Your task to perform on an android device: Open calendar and show me the second week of next month Image 0: 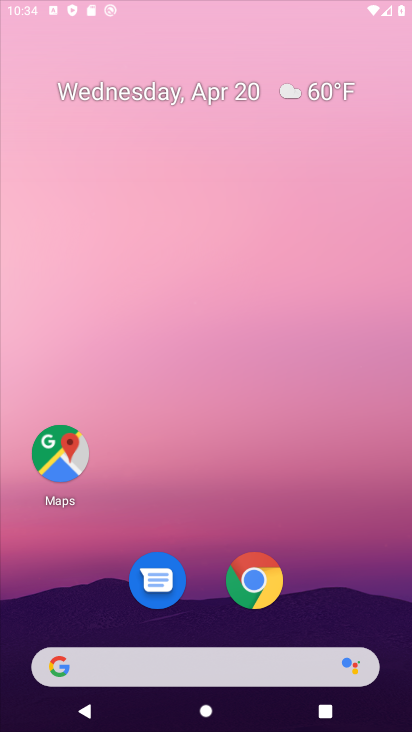
Step 0: click (204, 35)
Your task to perform on an android device: Open calendar and show me the second week of next month Image 1: 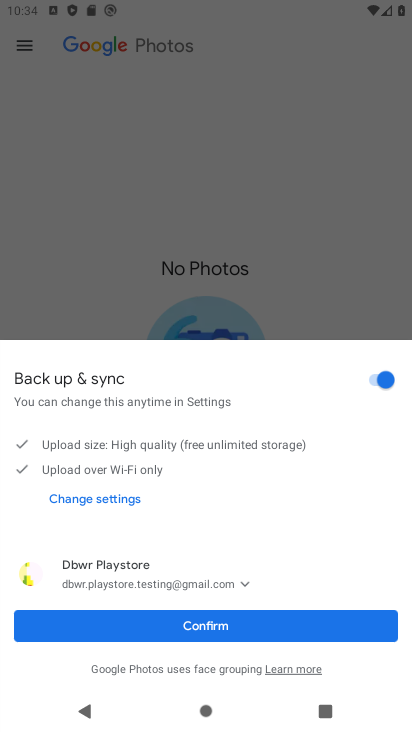
Step 1: press home button
Your task to perform on an android device: Open calendar and show me the second week of next month Image 2: 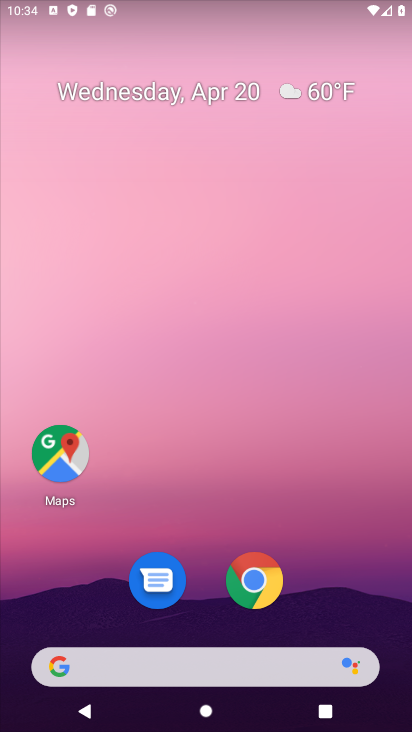
Step 2: drag from (194, 659) to (244, 65)
Your task to perform on an android device: Open calendar and show me the second week of next month Image 3: 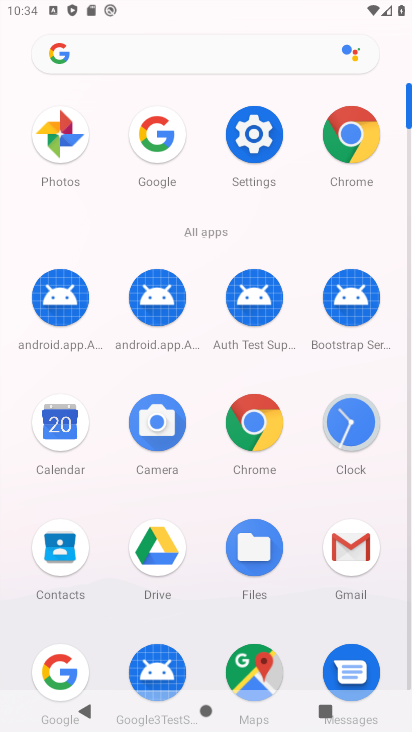
Step 3: click (72, 429)
Your task to perform on an android device: Open calendar and show me the second week of next month Image 4: 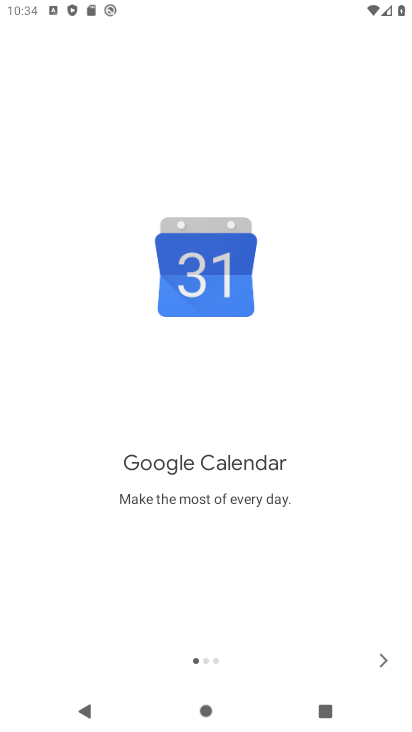
Step 4: click (384, 663)
Your task to perform on an android device: Open calendar and show me the second week of next month Image 5: 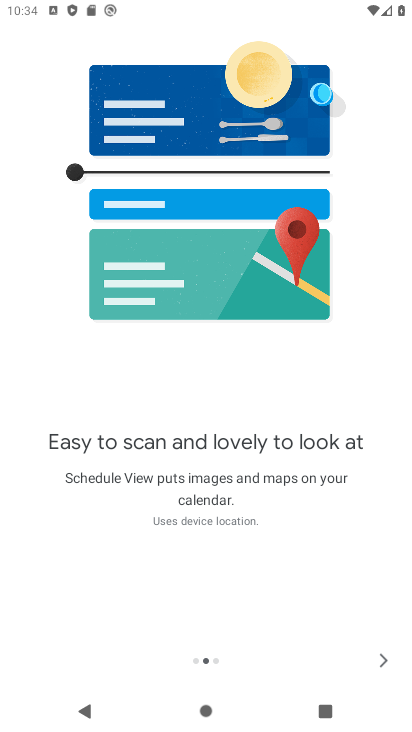
Step 5: click (392, 660)
Your task to perform on an android device: Open calendar and show me the second week of next month Image 6: 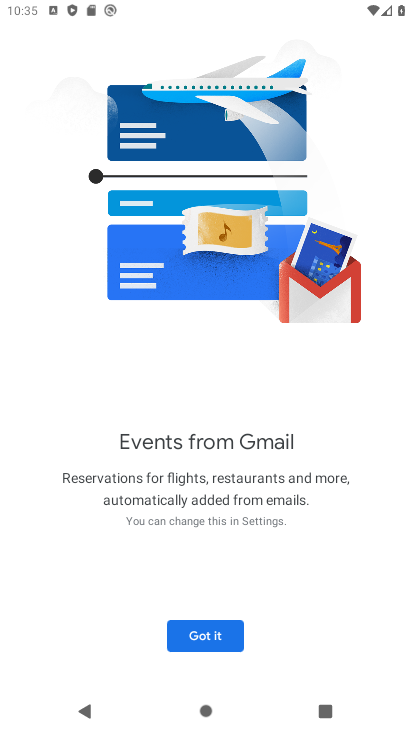
Step 6: click (237, 641)
Your task to perform on an android device: Open calendar and show me the second week of next month Image 7: 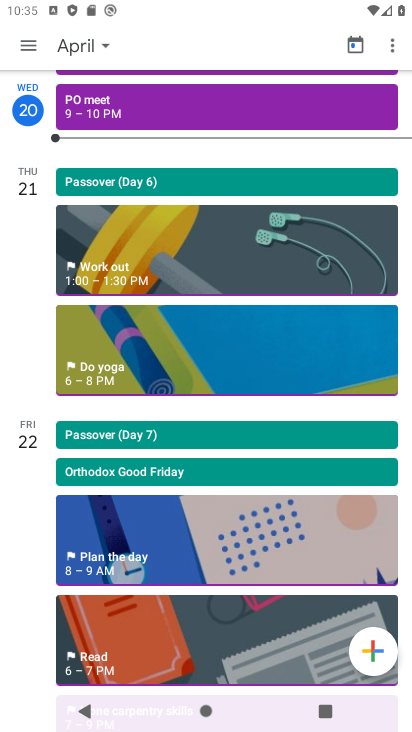
Step 7: click (38, 47)
Your task to perform on an android device: Open calendar and show me the second week of next month Image 8: 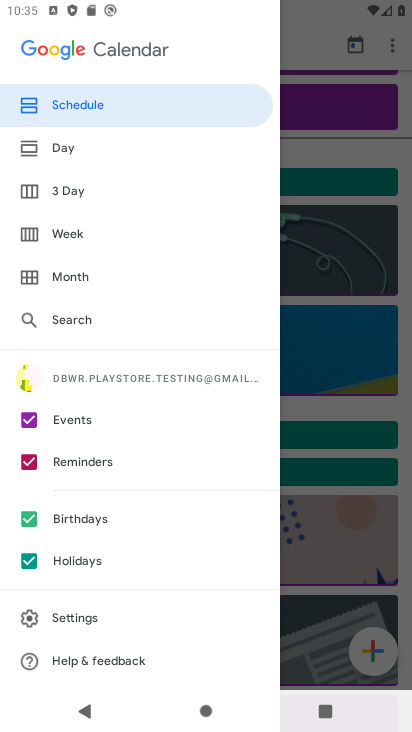
Step 8: click (76, 267)
Your task to perform on an android device: Open calendar and show me the second week of next month Image 9: 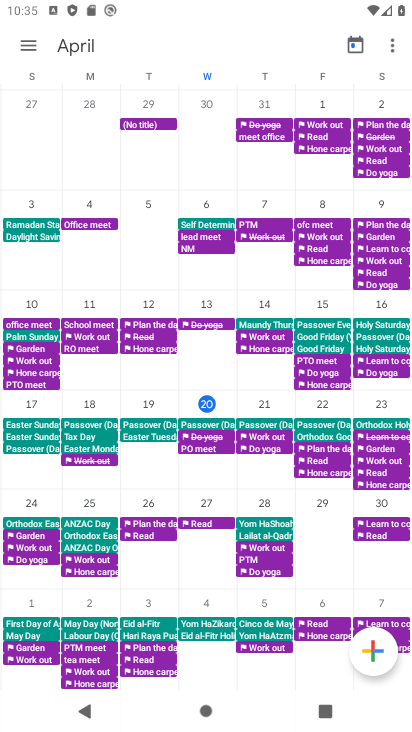
Step 9: task complete